Your task to perform on an android device: clear history in the chrome app Image 0: 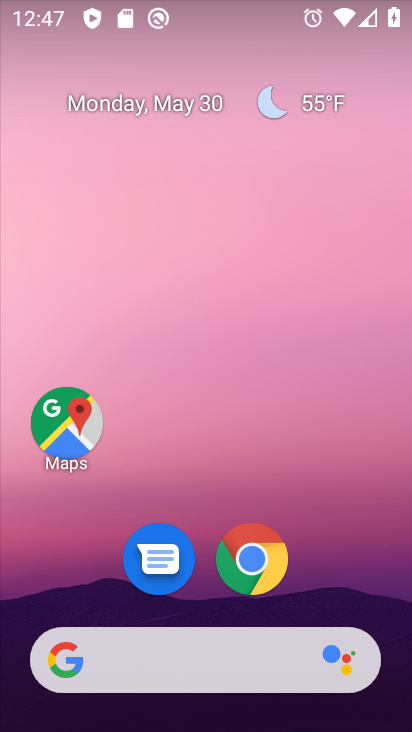
Step 0: click (262, 541)
Your task to perform on an android device: clear history in the chrome app Image 1: 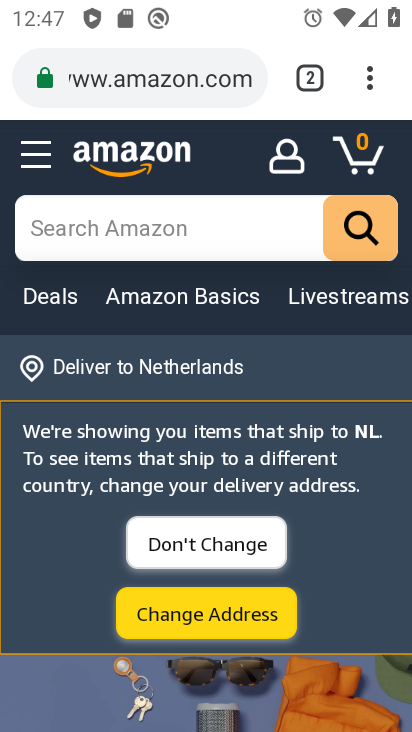
Step 1: drag from (365, 75) to (107, 433)
Your task to perform on an android device: clear history in the chrome app Image 2: 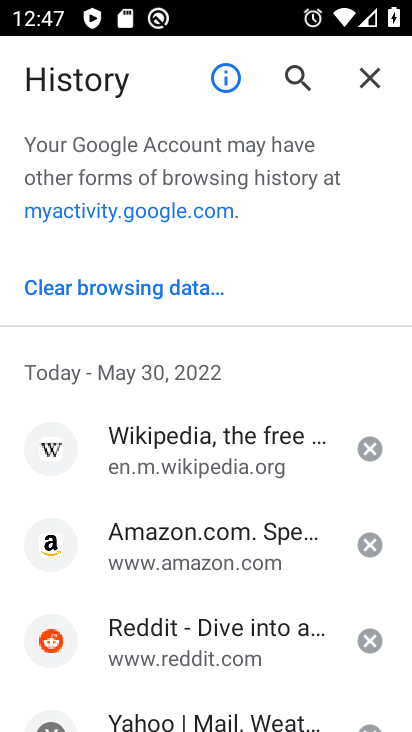
Step 2: click (127, 275)
Your task to perform on an android device: clear history in the chrome app Image 3: 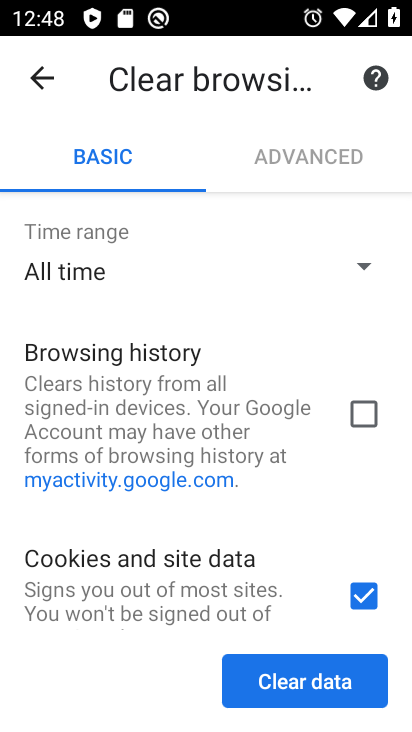
Step 3: click (323, 669)
Your task to perform on an android device: clear history in the chrome app Image 4: 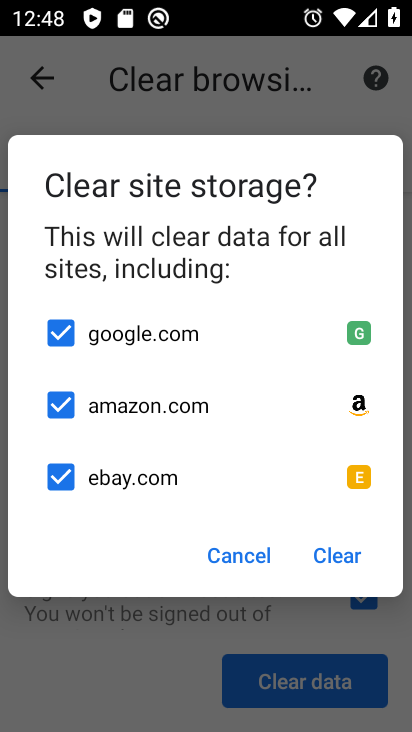
Step 4: click (335, 554)
Your task to perform on an android device: clear history in the chrome app Image 5: 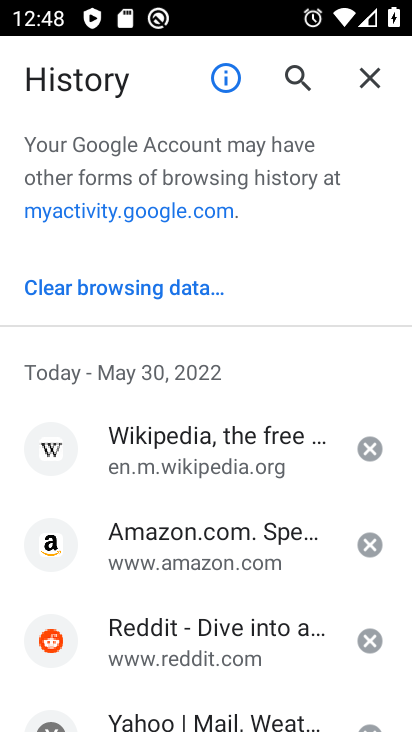
Step 5: task complete